Your task to perform on an android device: Open calendar and show me the third week of next month Image 0: 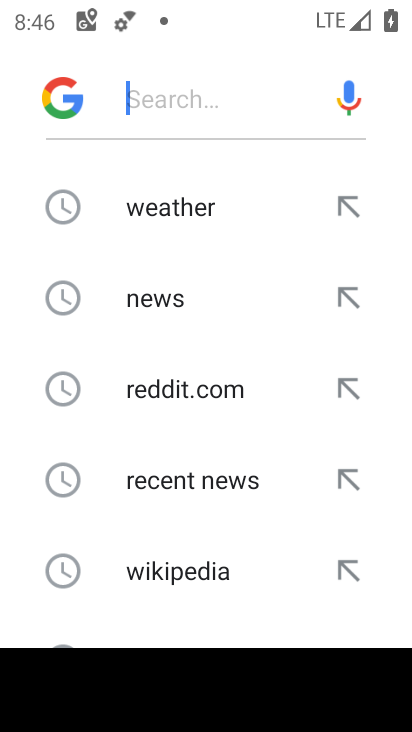
Step 0: press home button
Your task to perform on an android device: Open calendar and show me the third week of next month Image 1: 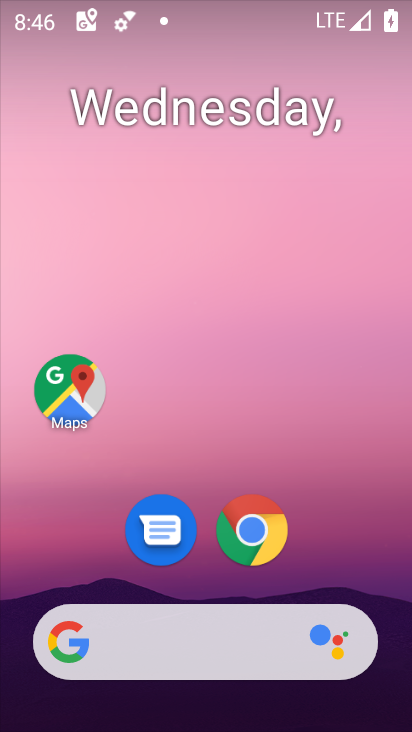
Step 1: drag from (361, 612) to (207, 2)
Your task to perform on an android device: Open calendar and show me the third week of next month Image 2: 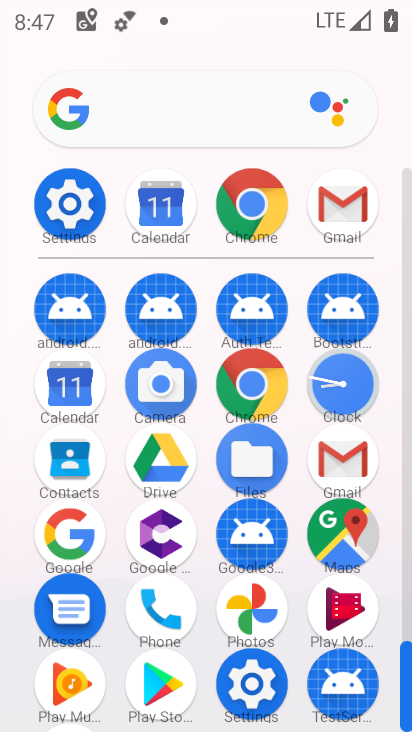
Step 2: click (77, 381)
Your task to perform on an android device: Open calendar and show me the third week of next month Image 3: 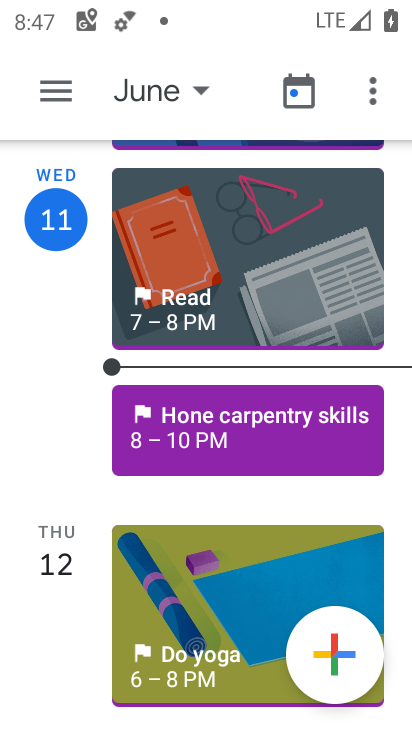
Step 3: click (164, 83)
Your task to perform on an android device: Open calendar and show me the third week of next month Image 4: 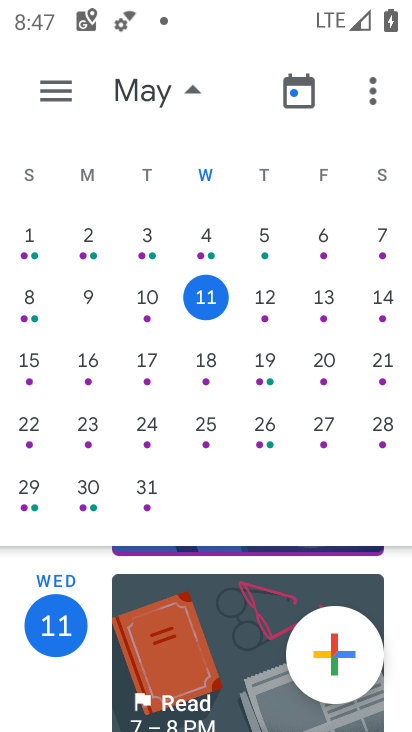
Step 4: drag from (364, 332) to (0, 331)
Your task to perform on an android device: Open calendar and show me the third week of next month Image 5: 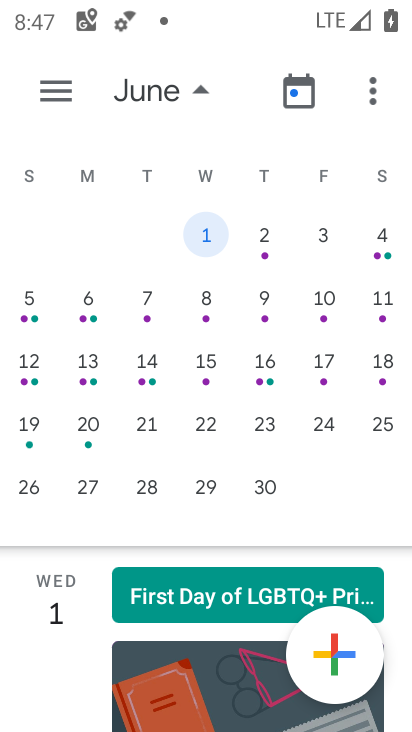
Step 5: click (83, 430)
Your task to perform on an android device: Open calendar and show me the third week of next month Image 6: 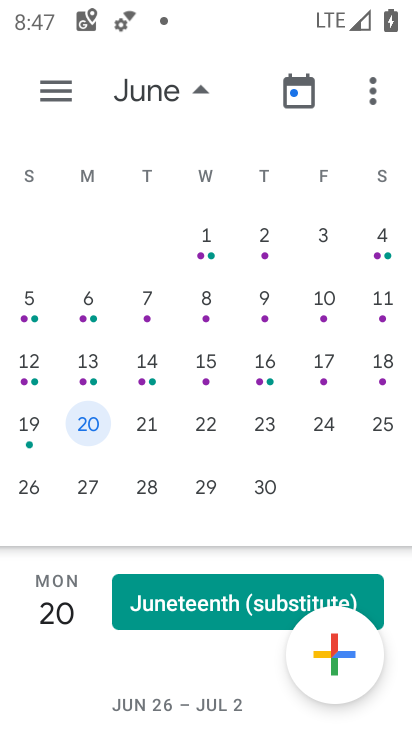
Step 6: task complete